Your task to perform on an android device: Show me productivity apps on the Play Store Image 0: 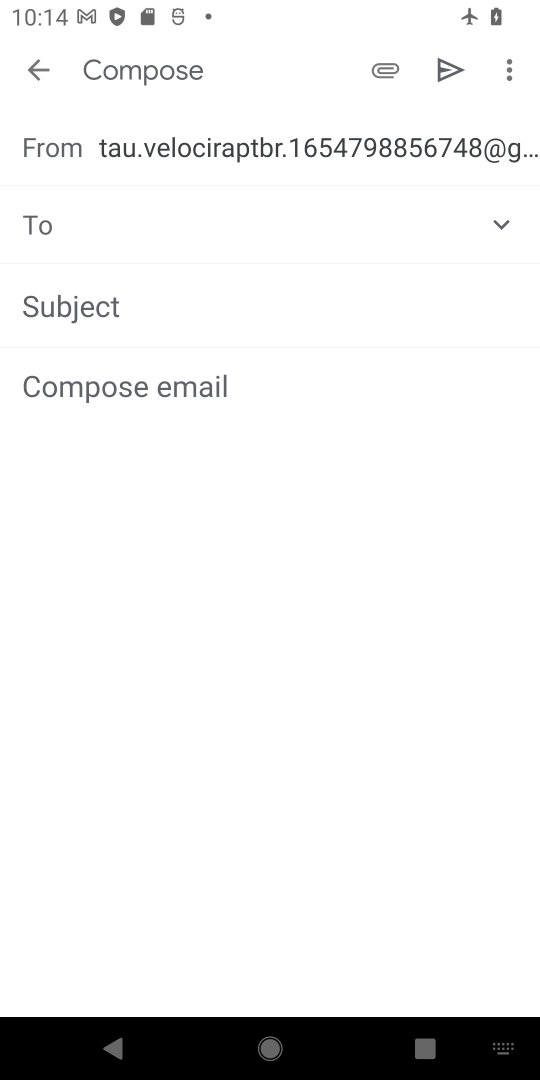
Step 0: press home button
Your task to perform on an android device: Show me productivity apps on the Play Store Image 1: 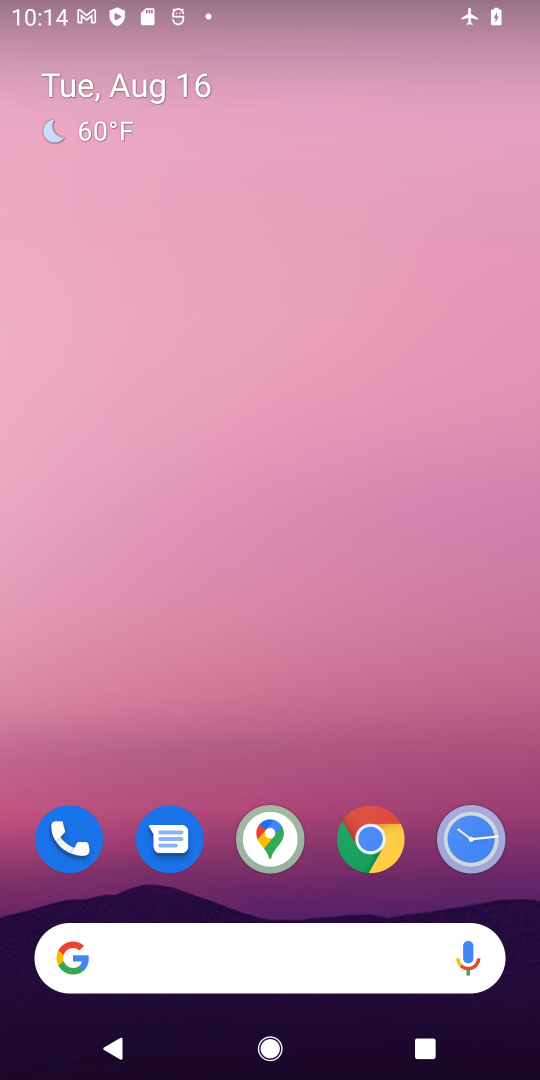
Step 1: drag from (209, 893) to (275, 7)
Your task to perform on an android device: Show me productivity apps on the Play Store Image 2: 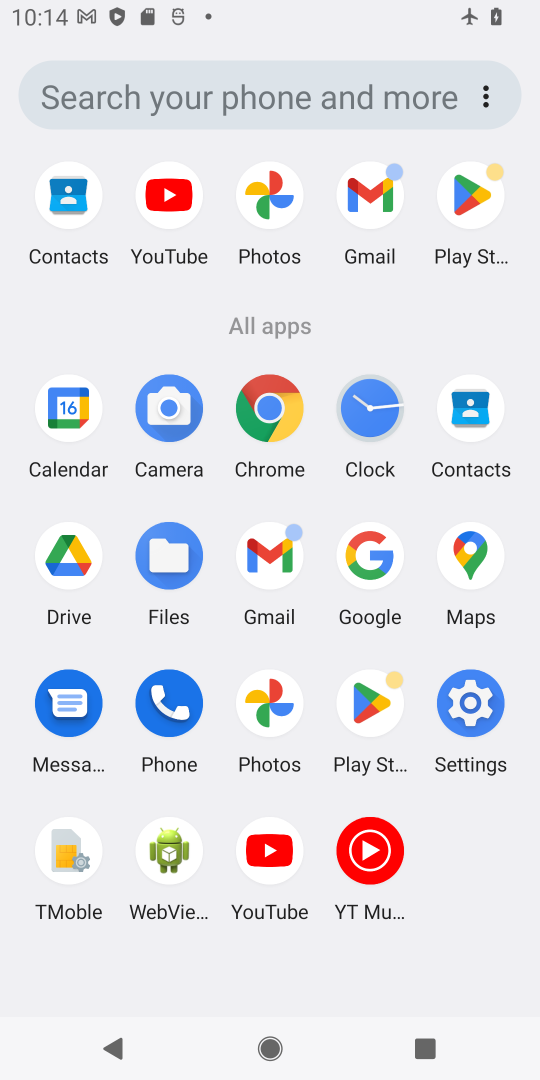
Step 2: click (380, 712)
Your task to perform on an android device: Show me productivity apps on the Play Store Image 3: 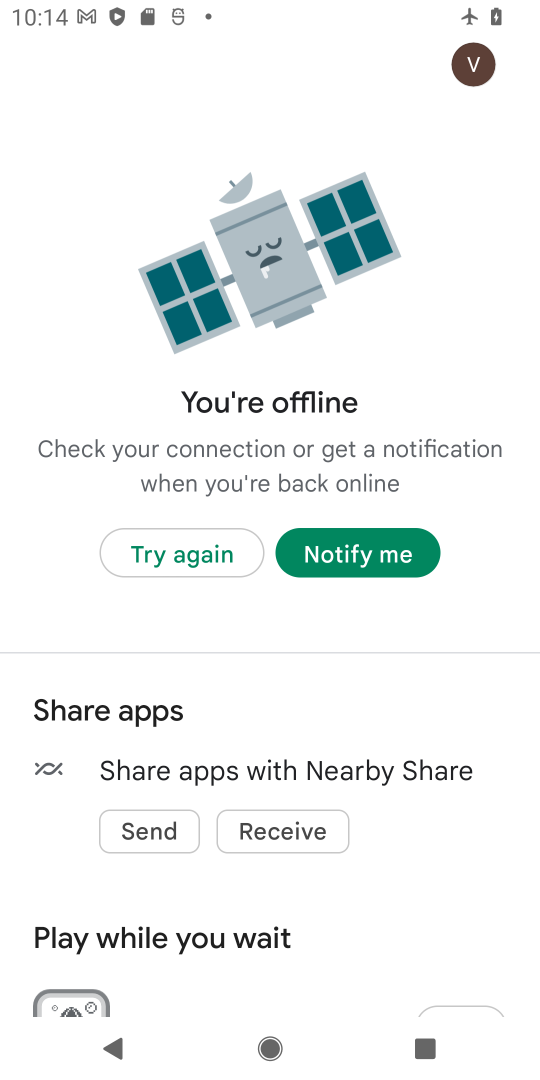
Step 3: click (184, 554)
Your task to perform on an android device: Show me productivity apps on the Play Store Image 4: 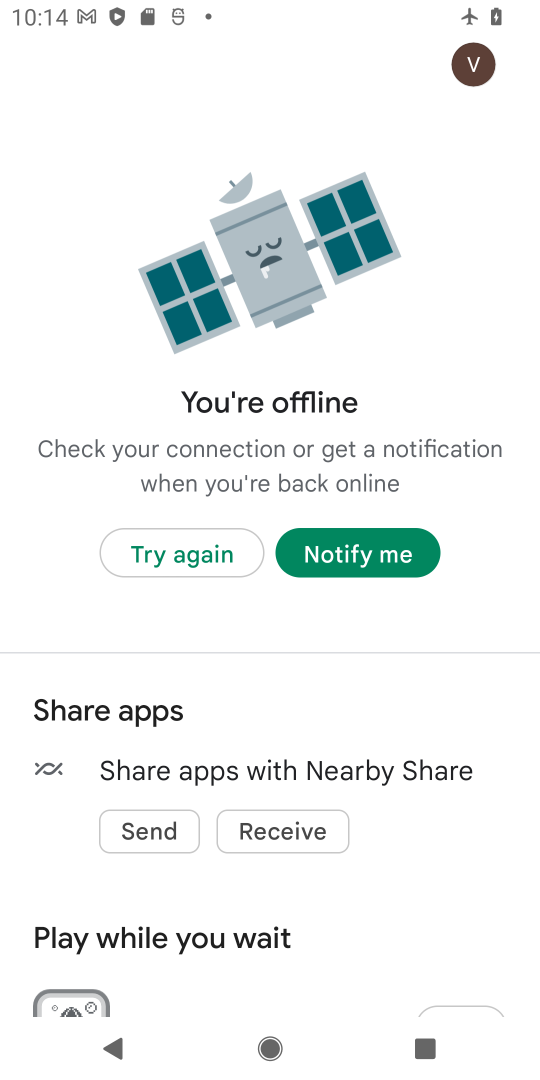
Step 4: click (195, 549)
Your task to perform on an android device: Show me productivity apps on the Play Store Image 5: 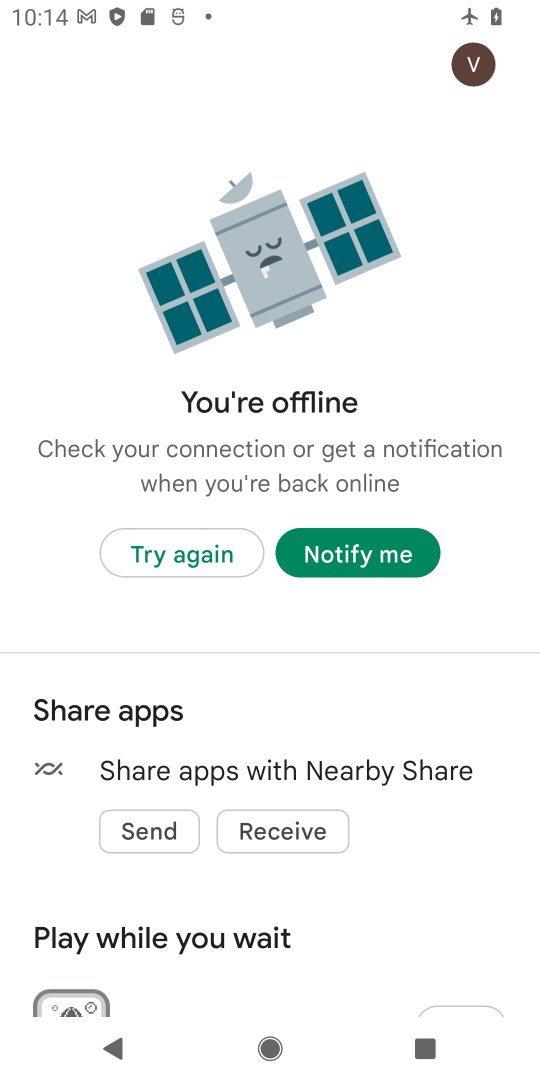
Step 5: click (186, 559)
Your task to perform on an android device: Show me productivity apps on the Play Store Image 6: 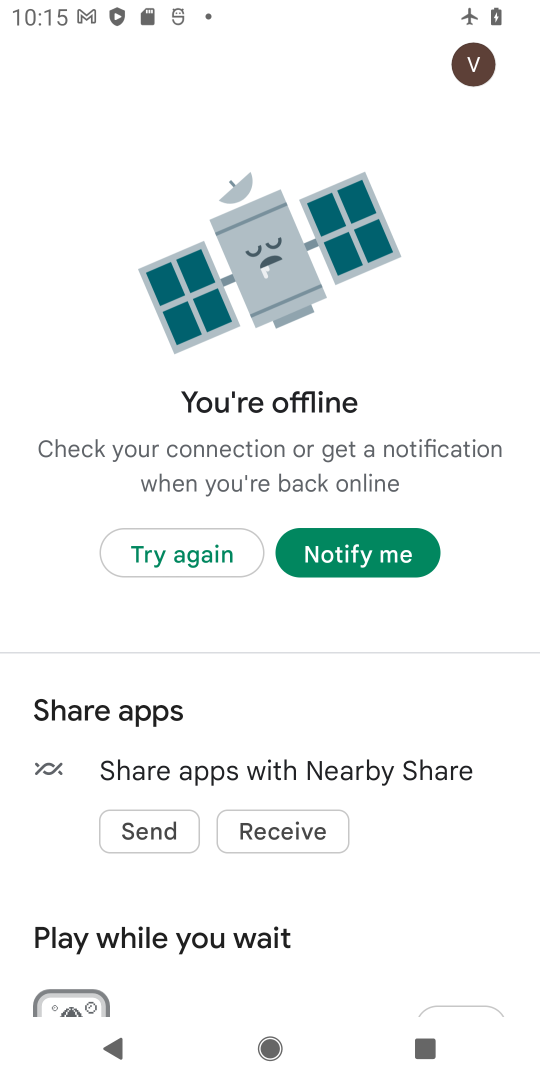
Step 6: click (176, 575)
Your task to perform on an android device: Show me productivity apps on the Play Store Image 7: 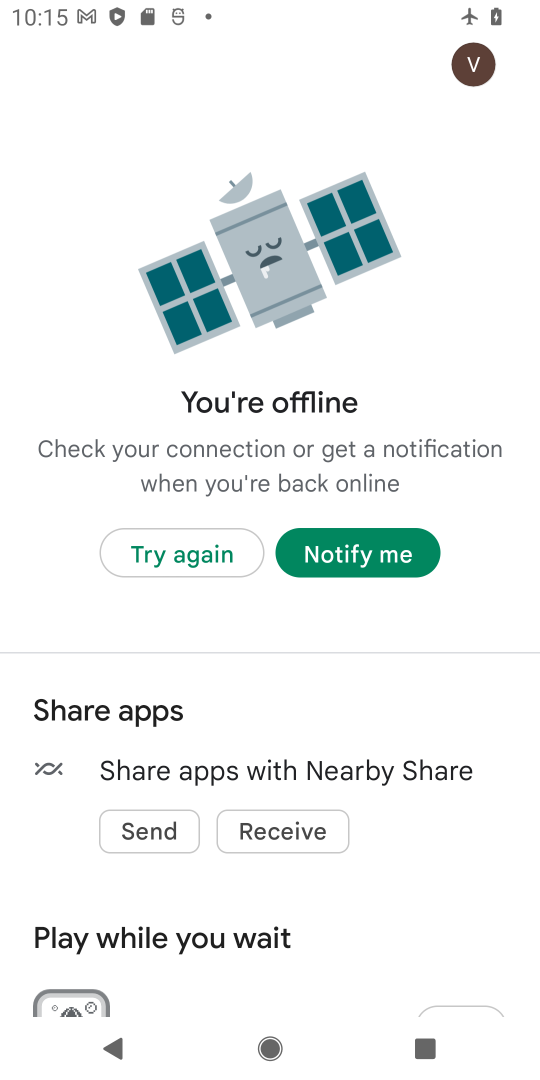
Step 7: task complete